Your task to perform on an android device: Is it going to rain tomorrow? Image 0: 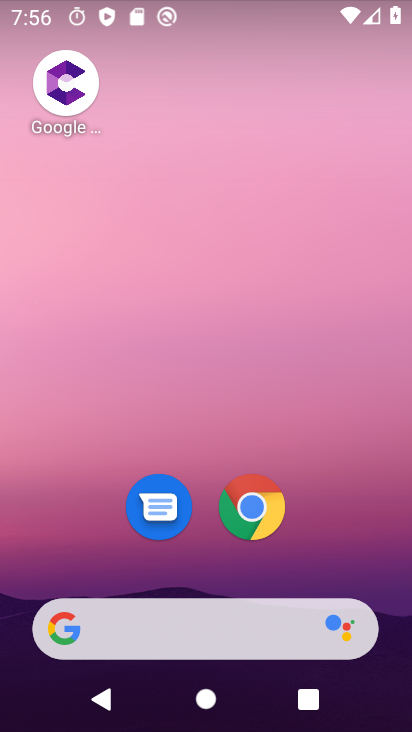
Step 0: drag from (352, 546) to (251, 27)
Your task to perform on an android device: Is it going to rain tomorrow? Image 1: 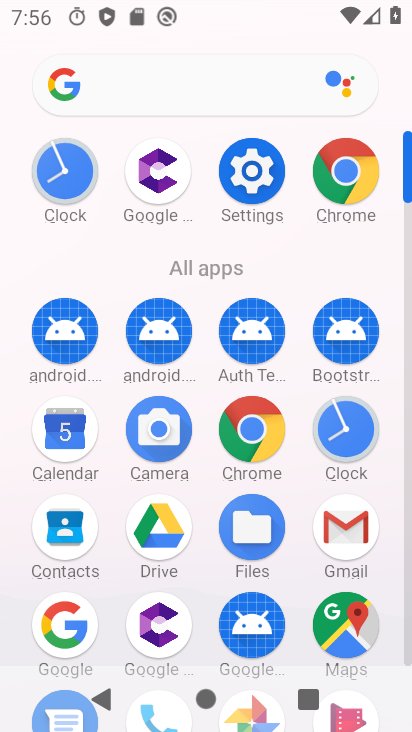
Step 1: drag from (16, 565) to (24, 267)
Your task to perform on an android device: Is it going to rain tomorrow? Image 2: 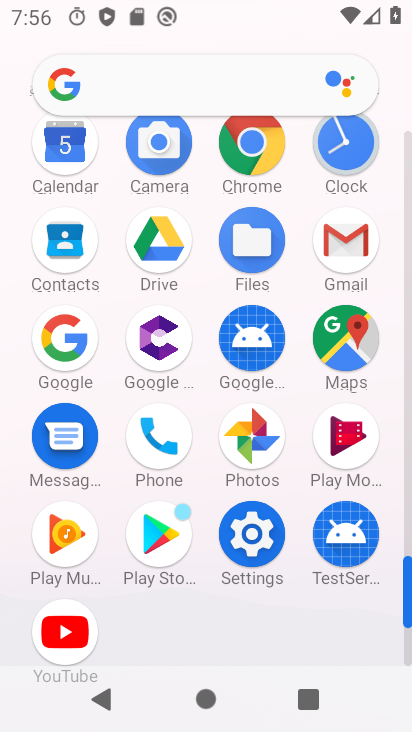
Step 2: click (256, 141)
Your task to perform on an android device: Is it going to rain tomorrow? Image 3: 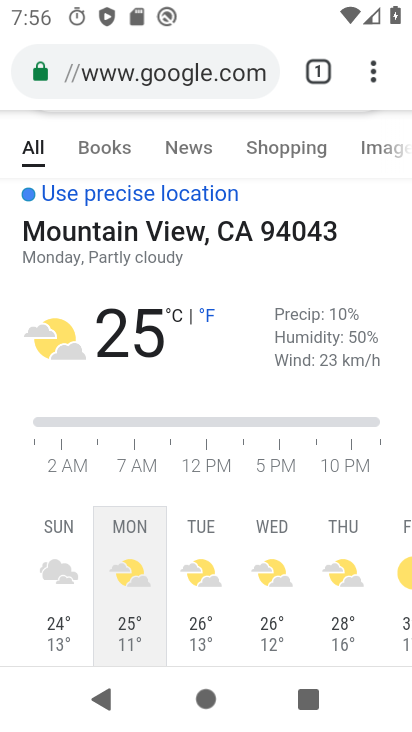
Step 3: click (204, 66)
Your task to perform on an android device: Is it going to rain tomorrow? Image 4: 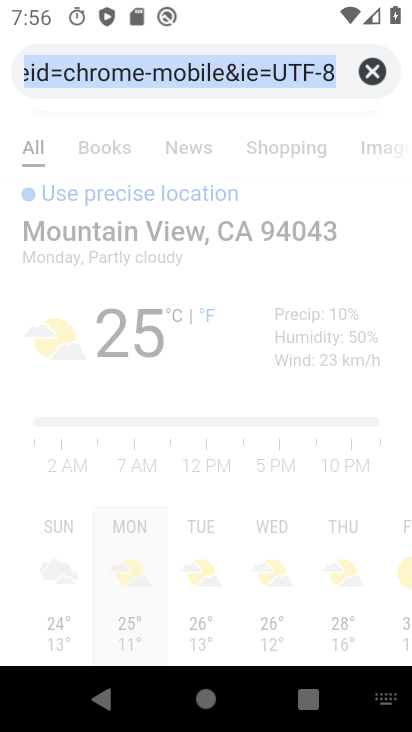
Step 4: click (367, 64)
Your task to perform on an android device: Is it going to rain tomorrow? Image 5: 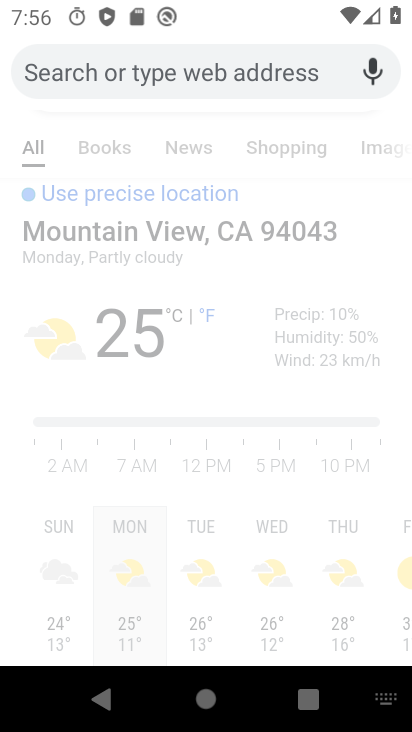
Step 5: type "Is it going to rain tomorrow?"
Your task to perform on an android device: Is it going to rain tomorrow? Image 6: 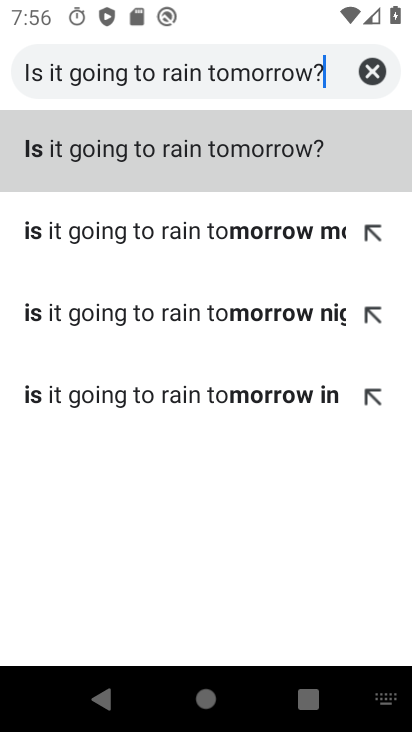
Step 6: click (204, 140)
Your task to perform on an android device: Is it going to rain tomorrow? Image 7: 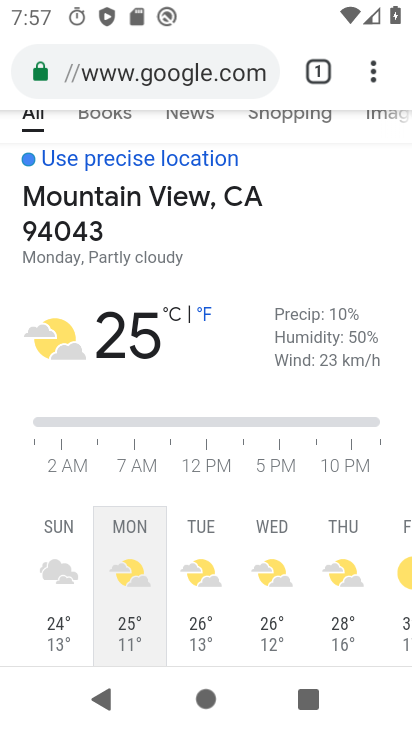
Step 7: task complete